Your task to perform on an android device: check google app version Image 0: 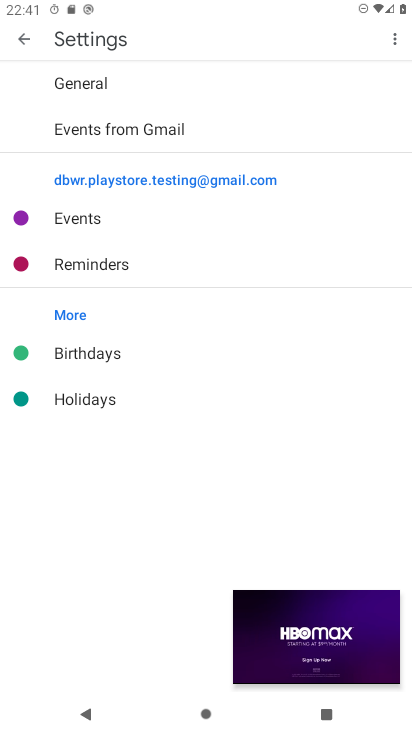
Step 0: press home button
Your task to perform on an android device: check google app version Image 1: 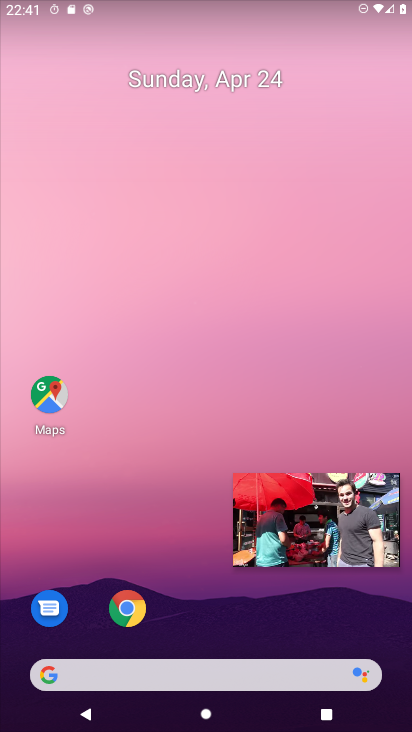
Step 1: drag from (161, 531) to (171, 9)
Your task to perform on an android device: check google app version Image 2: 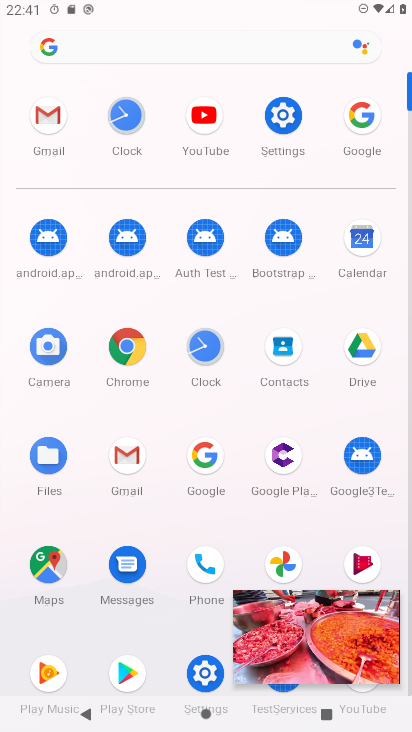
Step 2: click (202, 450)
Your task to perform on an android device: check google app version Image 3: 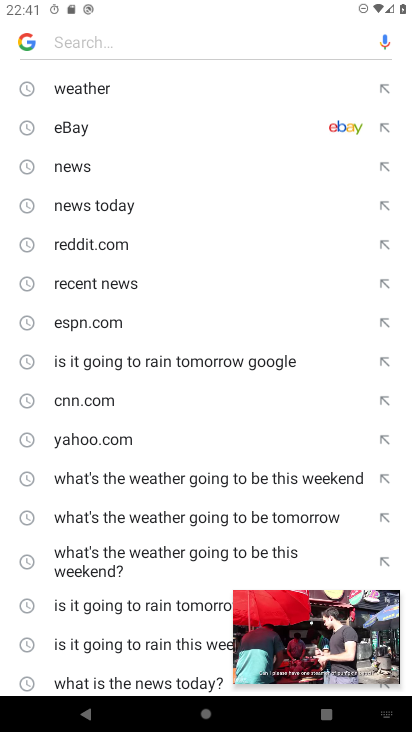
Step 3: click (31, 37)
Your task to perform on an android device: check google app version Image 4: 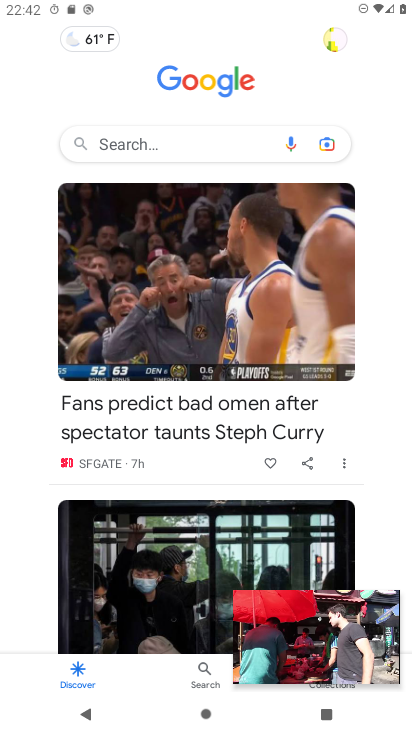
Step 4: click (333, 42)
Your task to perform on an android device: check google app version Image 5: 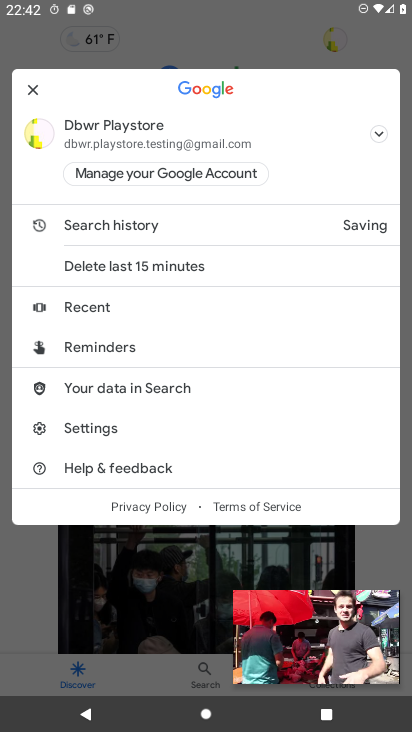
Step 5: click (116, 425)
Your task to perform on an android device: check google app version Image 6: 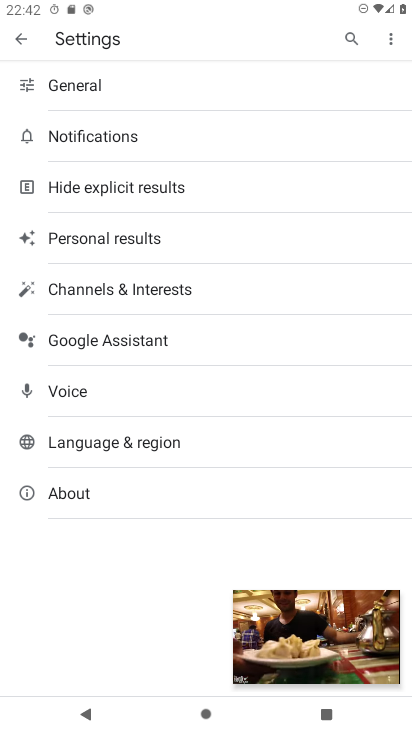
Step 6: click (79, 485)
Your task to perform on an android device: check google app version Image 7: 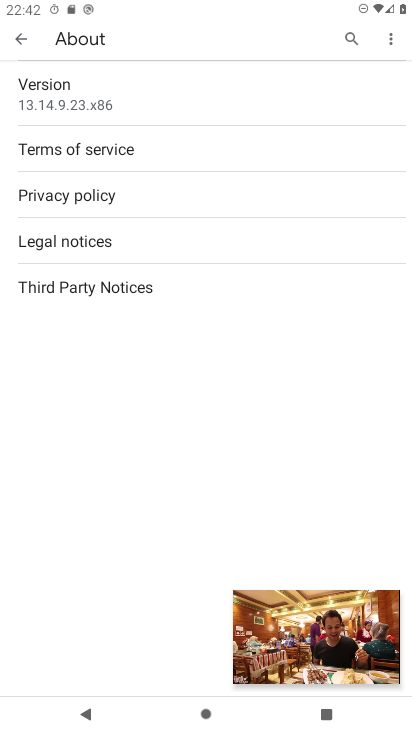
Step 7: task complete